Your task to perform on an android device: toggle notification dots Image 0: 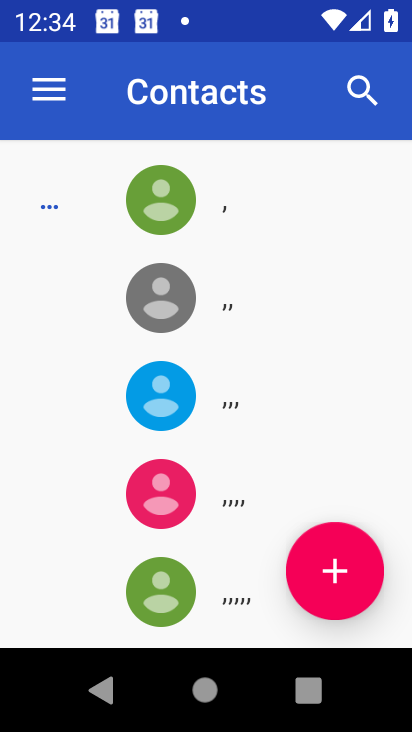
Step 0: press home button
Your task to perform on an android device: toggle notification dots Image 1: 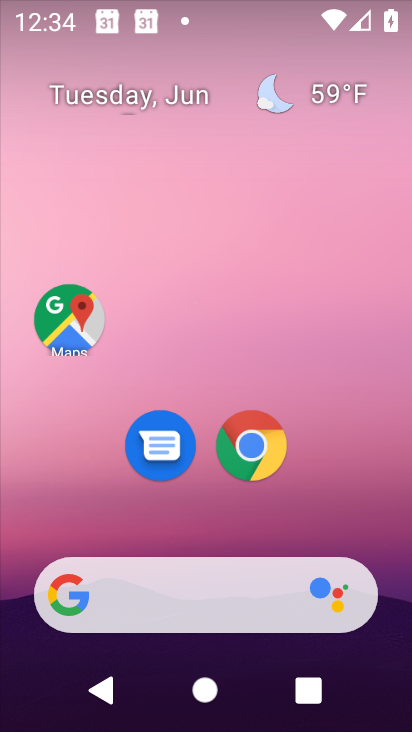
Step 1: drag from (202, 511) to (403, 147)
Your task to perform on an android device: toggle notification dots Image 2: 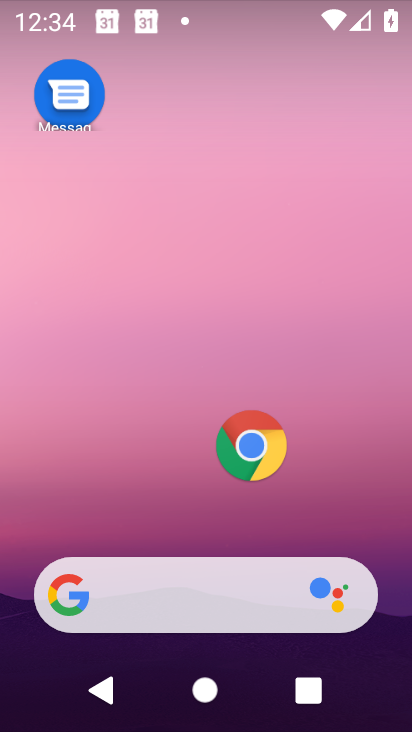
Step 2: drag from (180, 537) to (248, 18)
Your task to perform on an android device: toggle notification dots Image 3: 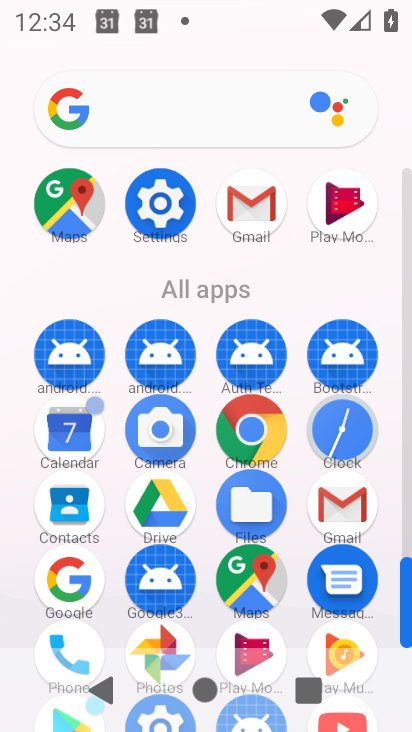
Step 3: click (178, 210)
Your task to perform on an android device: toggle notification dots Image 4: 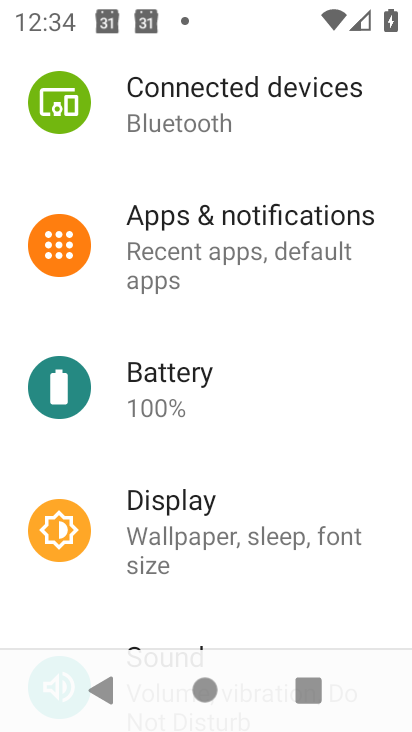
Step 4: click (167, 277)
Your task to perform on an android device: toggle notification dots Image 5: 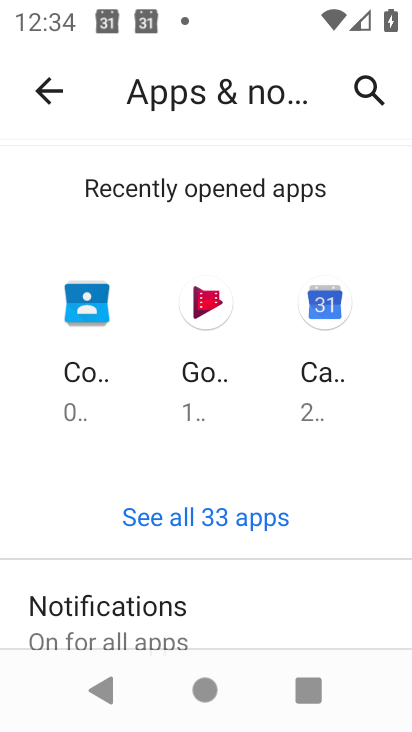
Step 5: drag from (101, 637) to (353, 185)
Your task to perform on an android device: toggle notification dots Image 6: 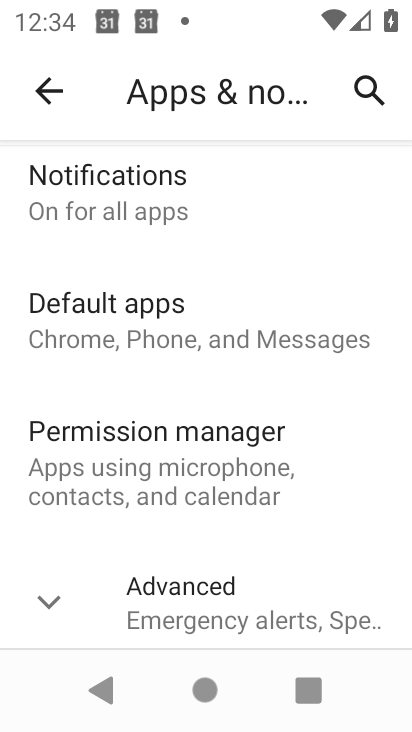
Step 6: drag from (144, 629) to (313, 128)
Your task to perform on an android device: toggle notification dots Image 7: 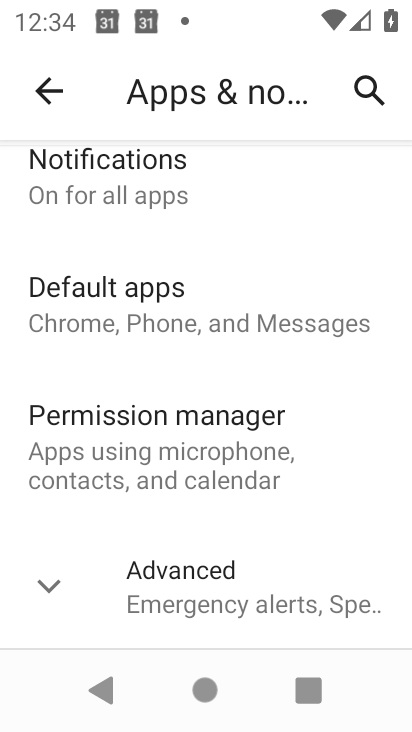
Step 7: drag from (205, 624) to (260, 153)
Your task to perform on an android device: toggle notification dots Image 8: 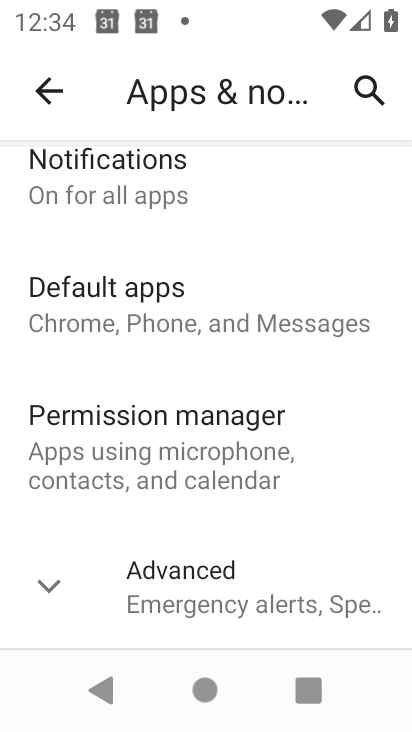
Step 8: drag from (45, 622) to (150, 108)
Your task to perform on an android device: toggle notification dots Image 9: 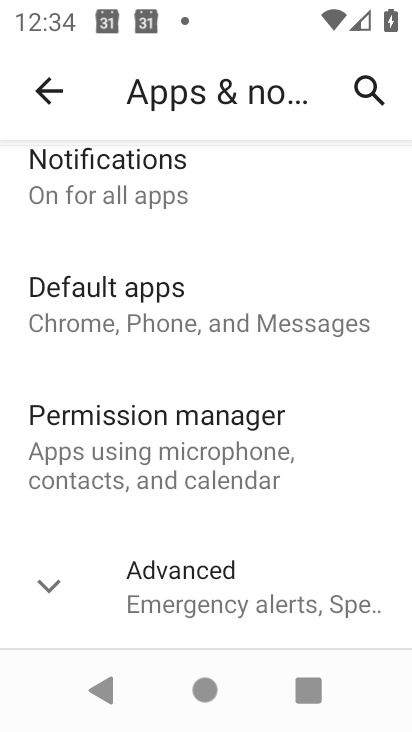
Step 9: click (261, 584)
Your task to perform on an android device: toggle notification dots Image 10: 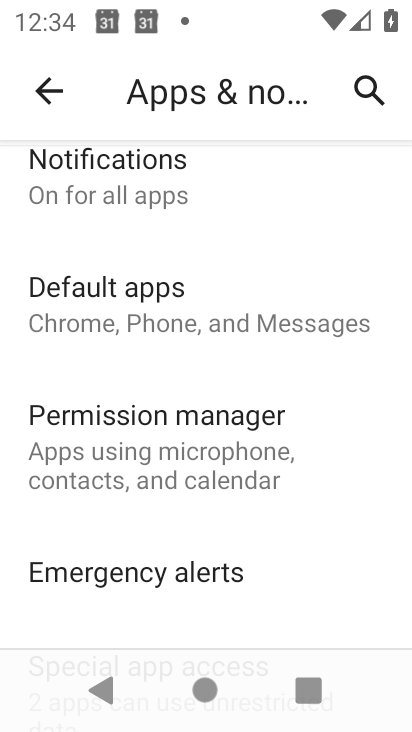
Step 10: drag from (261, 584) to (219, 164)
Your task to perform on an android device: toggle notification dots Image 11: 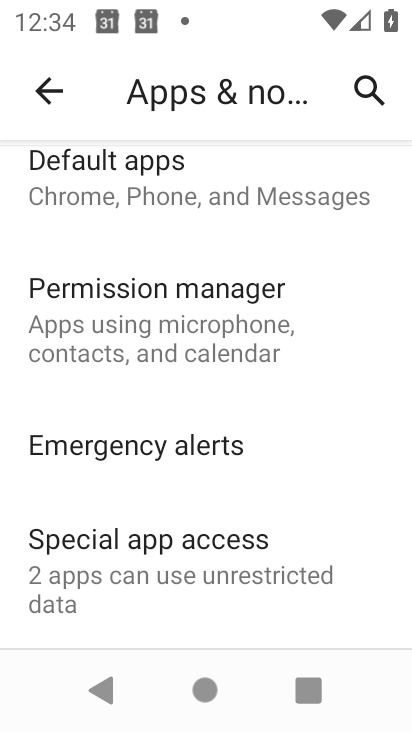
Step 11: drag from (364, 209) to (242, 554)
Your task to perform on an android device: toggle notification dots Image 12: 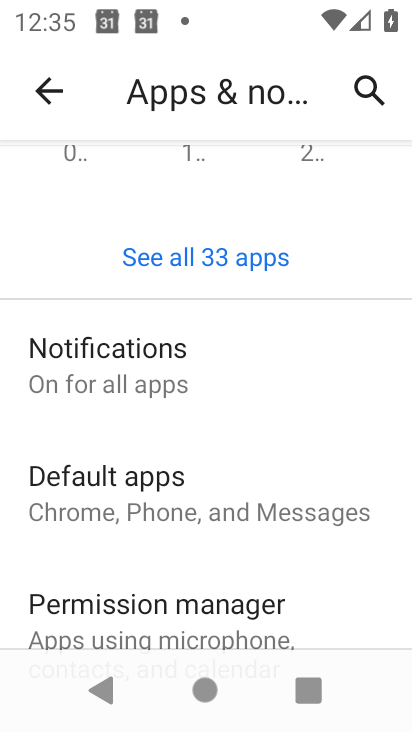
Step 12: click (139, 385)
Your task to perform on an android device: toggle notification dots Image 13: 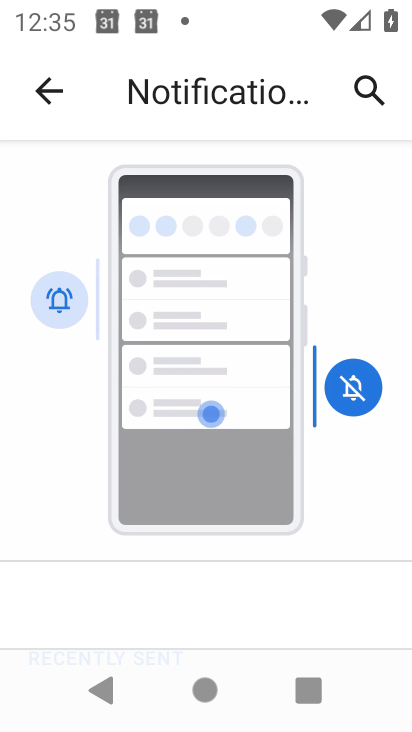
Step 13: drag from (85, 530) to (101, 4)
Your task to perform on an android device: toggle notification dots Image 14: 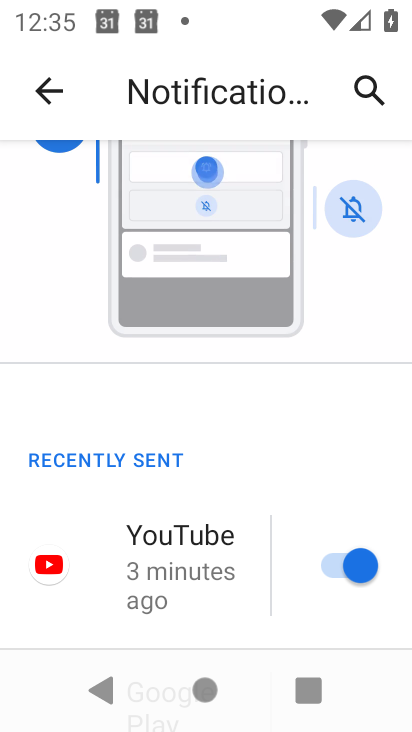
Step 14: drag from (129, 643) to (191, 187)
Your task to perform on an android device: toggle notification dots Image 15: 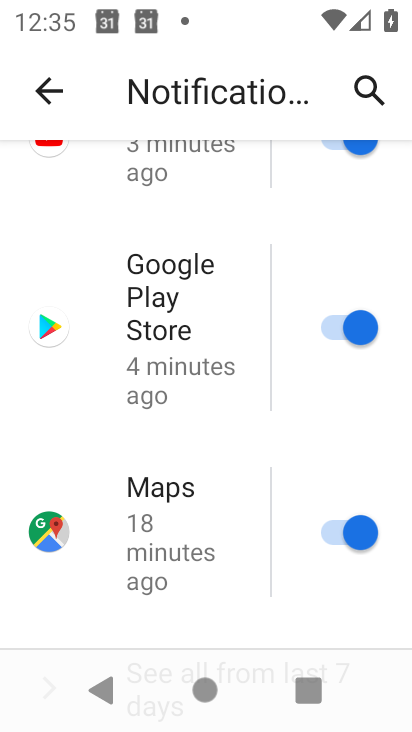
Step 15: drag from (56, 629) to (115, 193)
Your task to perform on an android device: toggle notification dots Image 16: 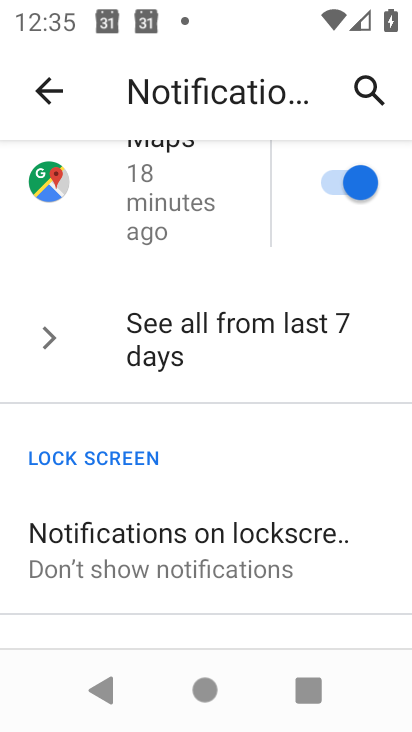
Step 16: drag from (164, 569) to (174, 180)
Your task to perform on an android device: toggle notification dots Image 17: 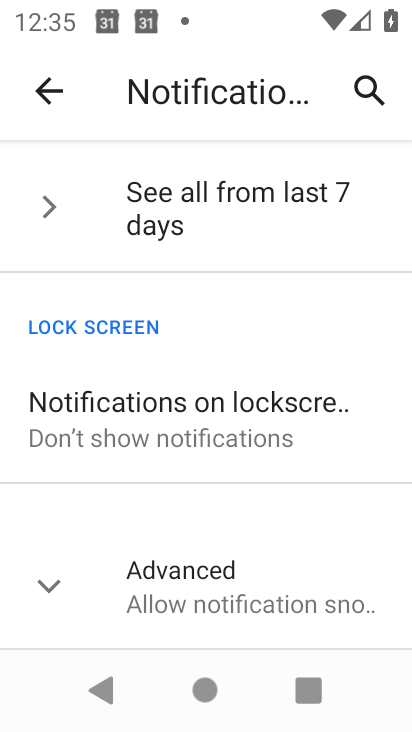
Step 17: click (177, 612)
Your task to perform on an android device: toggle notification dots Image 18: 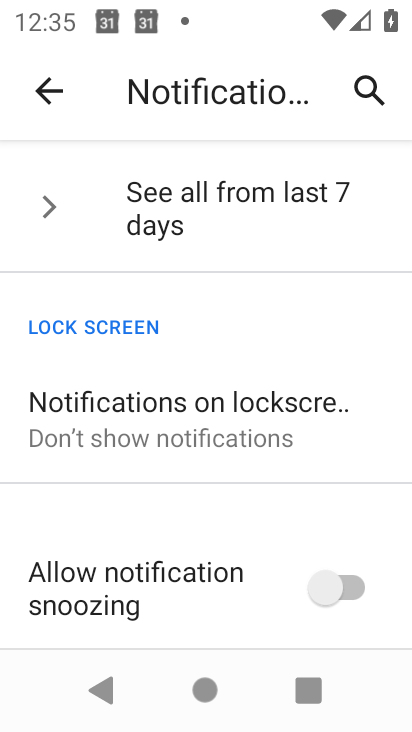
Step 18: drag from (177, 612) to (179, 156)
Your task to perform on an android device: toggle notification dots Image 19: 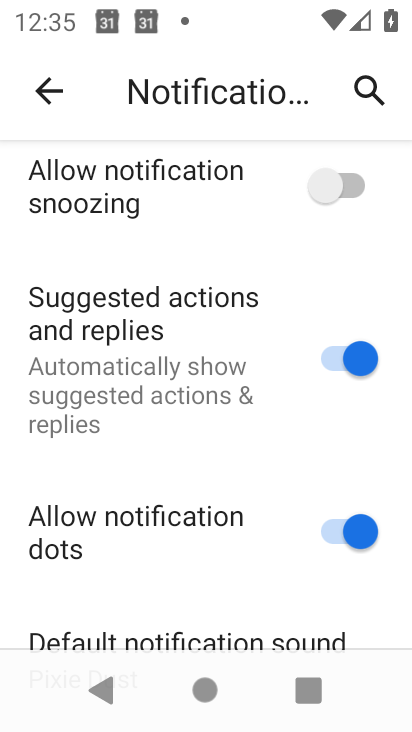
Step 19: click (353, 518)
Your task to perform on an android device: toggle notification dots Image 20: 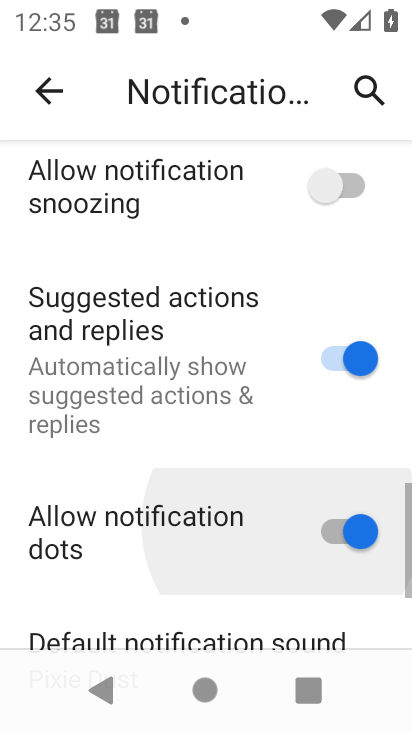
Step 20: click (353, 518)
Your task to perform on an android device: toggle notification dots Image 21: 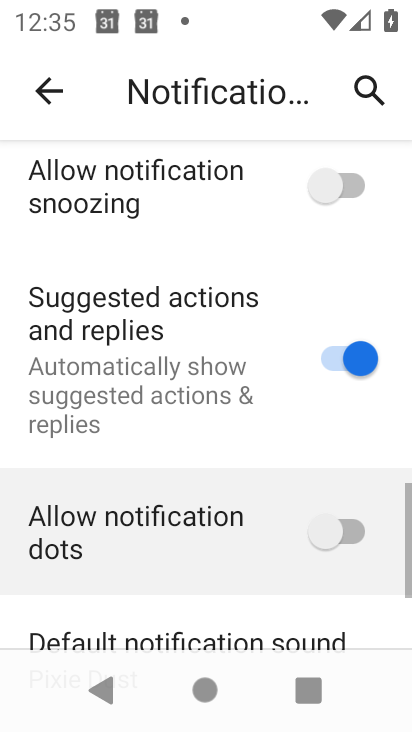
Step 21: click (353, 518)
Your task to perform on an android device: toggle notification dots Image 22: 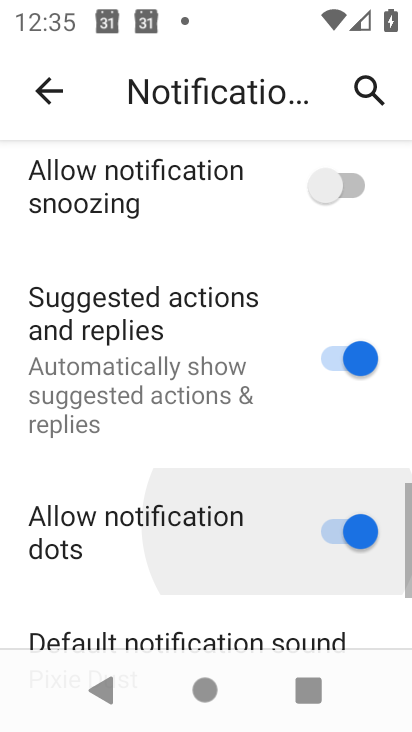
Step 22: click (353, 518)
Your task to perform on an android device: toggle notification dots Image 23: 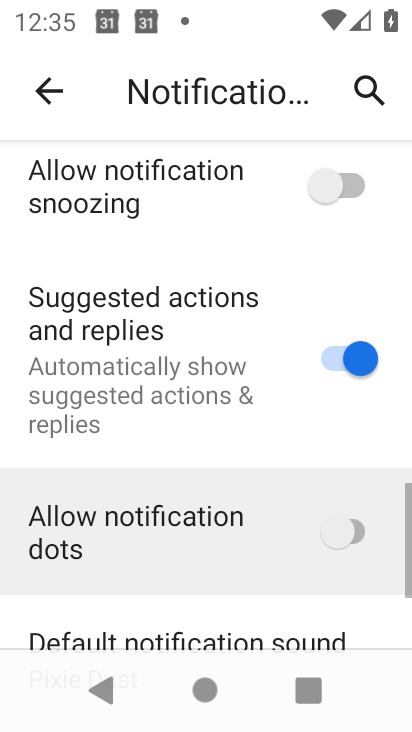
Step 23: click (353, 518)
Your task to perform on an android device: toggle notification dots Image 24: 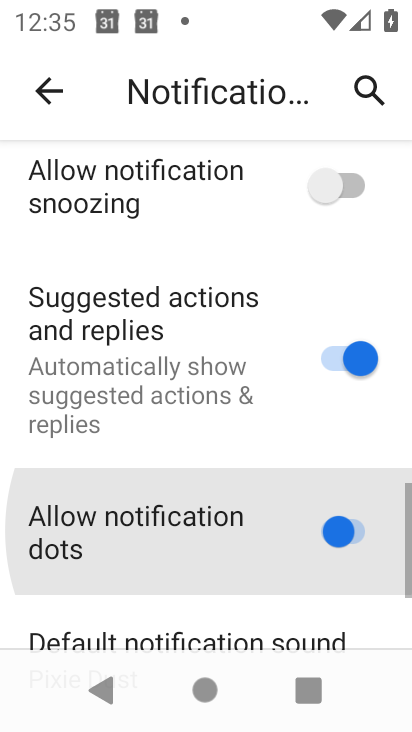
Step 24: click (353, 518)
Your task to perform on an android device: toggle notification dots Image 25: 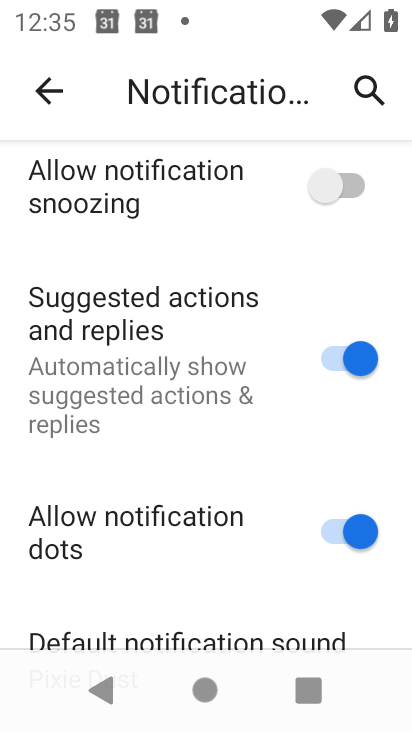
Step 25: task complete